Your task to perform on an android device: toggle data saver in the chrome app Image 0: 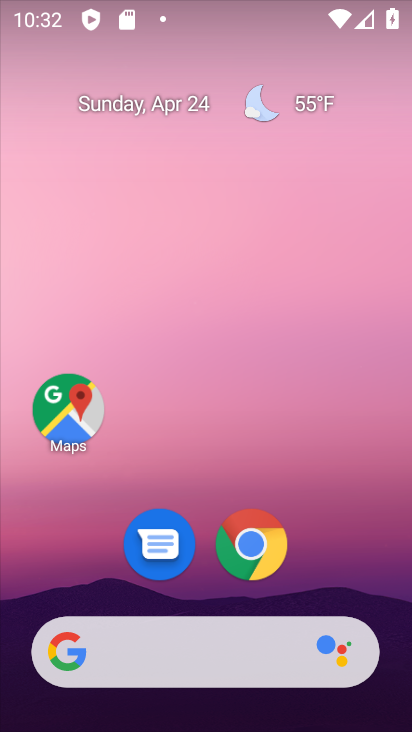
Step 0: click (239, 553)
Your task to perform on an android device: toggle data saver in the chrome app Image 1: 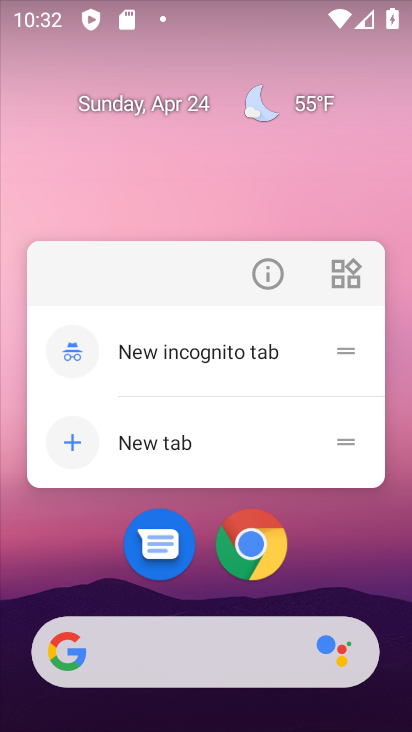
Step 1: click (239, 553)
Your task to perform on an android device: toggle data saver in the chrome app Image 2: 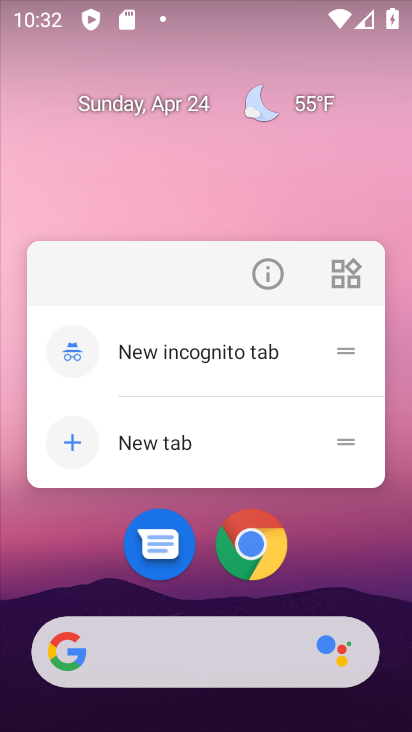
Step 2: click (258, 553)
Your task to perform on an android device: toggle data saver in the chrome app Image 3: 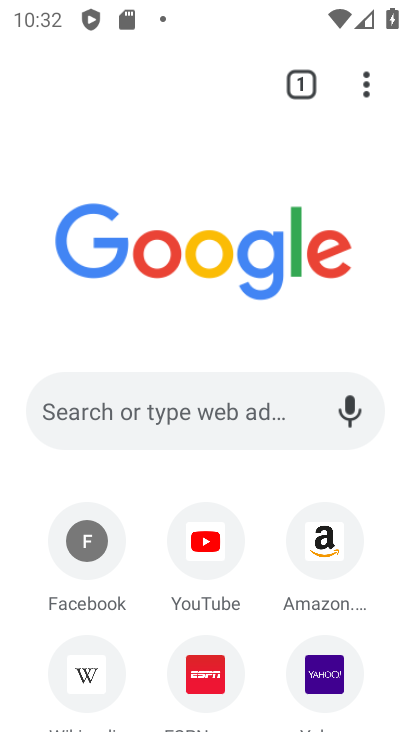
Step 3: drag from (366, 87) to (134, 594)
Your task to perform on an android device: toggle data saver in the chrome app Image 4: 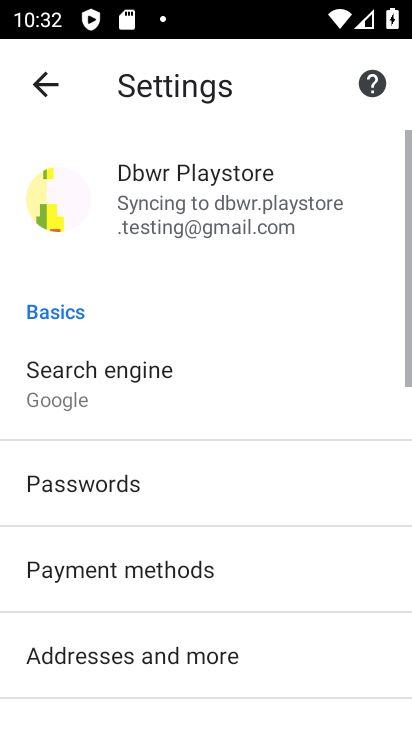
Step 4: drag from (134, 593) to (145, 200)
Your task to perform on an android device: toggle data saver in the chrome app Image 5: 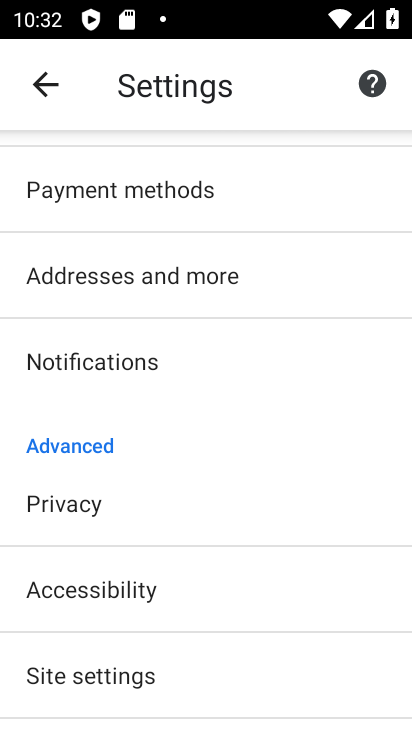
Step 5: drag from (214, 640) to (221, 262)
Your task to perform on an android device: toggle data saver in the chrome app Image 6: 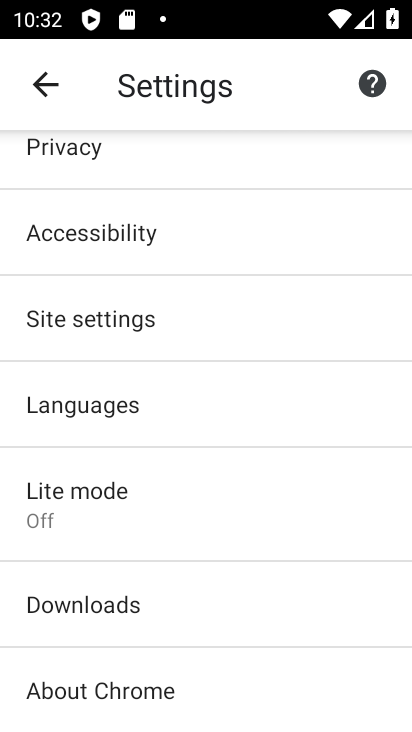
Step 6: click (110, 504)
Your task to perform on an android device: toggle data saver in the chrome app Image 7: 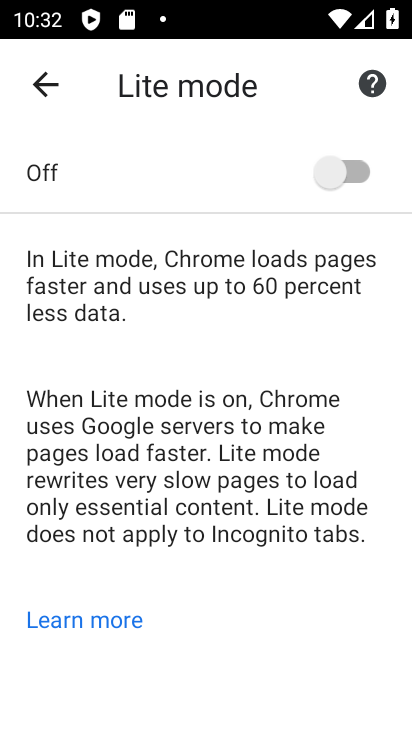
Step 7: click (346, 171)
Your task to perform on an android device: toggle data saver in the chrome app Image 8: 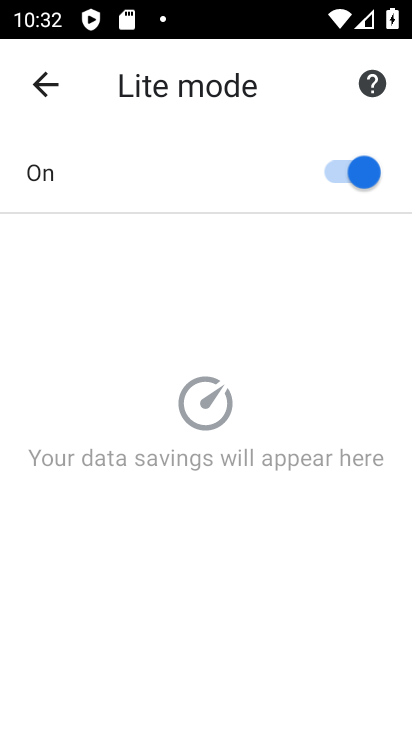
Step 8: task complete